Your task to perform on an android device: Open the map Image 0: 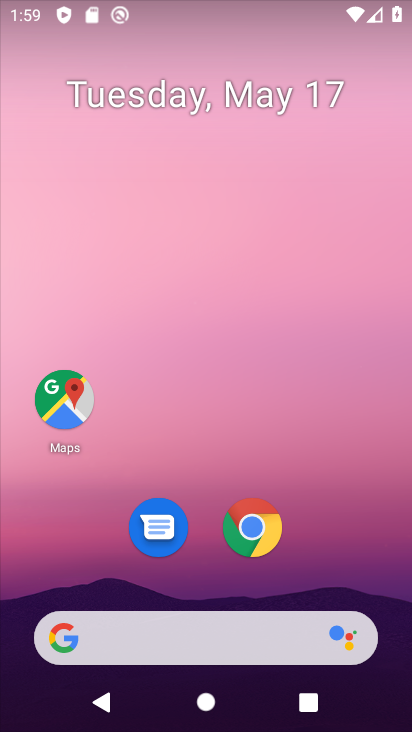
Step 0: click (58, 387)
Your task to perform on an android device: Open the map Image 1: 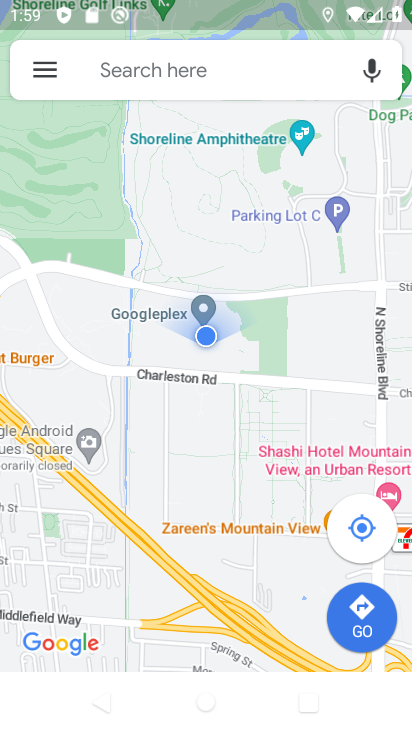
Step 1: task complete